Your task to perform on an android device: turn notification dots off Image 0: 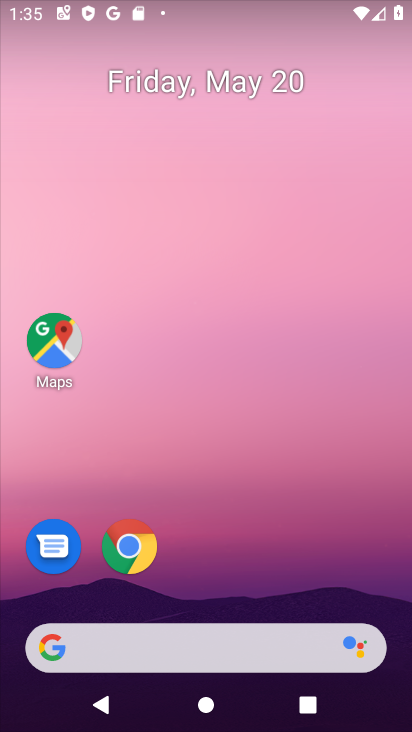
Step 0: drag from (219, 663) to (244, 26)
Your task to perform on an android device: turn notification dots off Image 1: 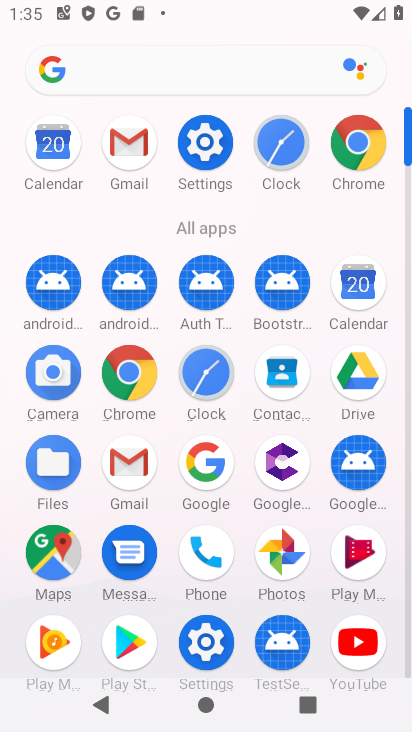
Step 1: click (216, 134)
Your task to perform on an android device: turn notification dots off Image 2: 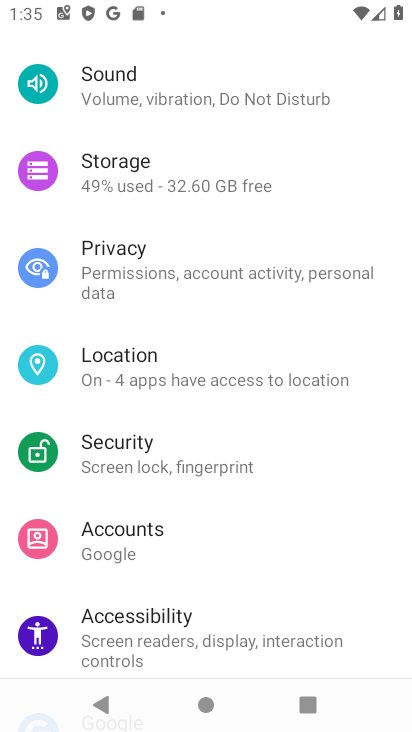
Step 2: drag from (209, 203) to (305, 728)
Your task to perform on an android device: turn notification dots off Image 3: 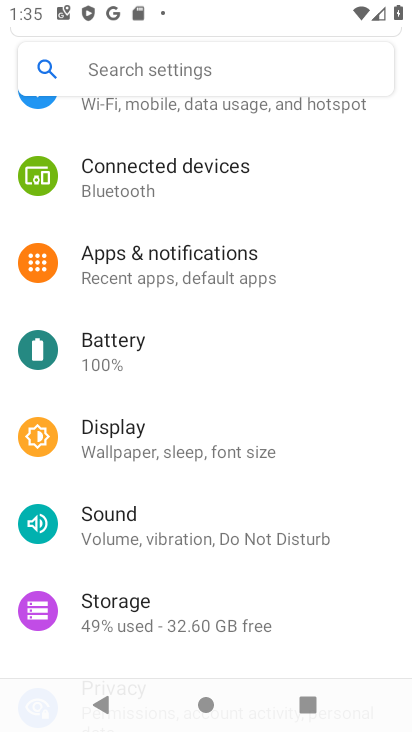
Step 3: click (249, 261)
Your task to perform on an android device: turn notification dots off Image 4: 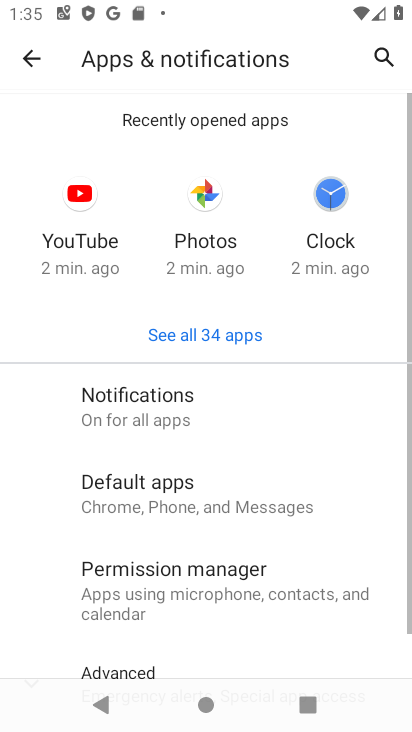
Step 4: drag from (209, 611) to (219, 58)
Your task to perform on an android device: turn notification dots off Image 5: 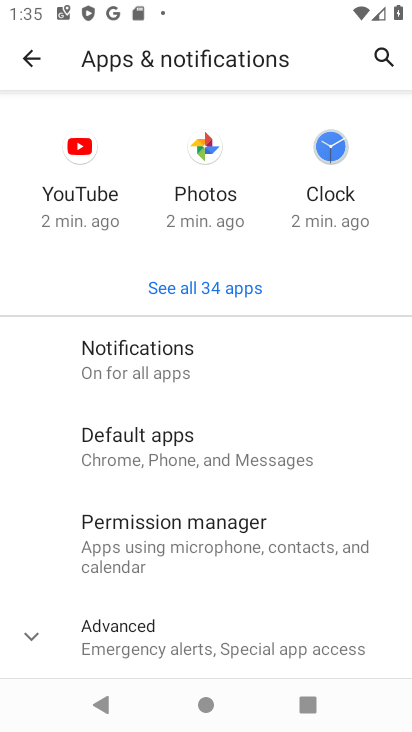
Step 5: click (229, 642)
Your task to perform on an android device: turn notification dots off Image 6: 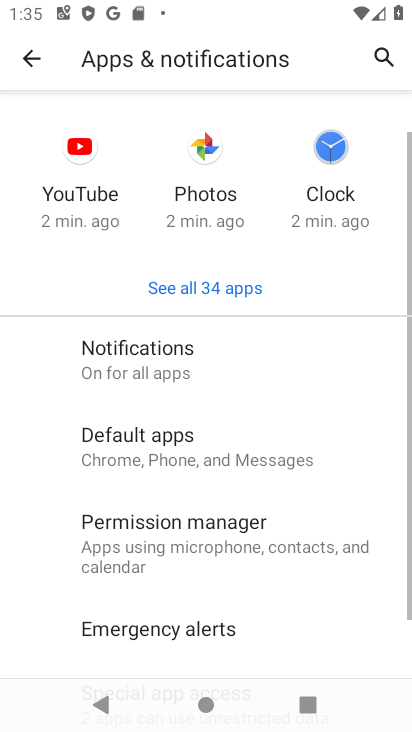
Step 6: click (241, 341)
Your task to perform on an android device: turn notification dots off Image 7: 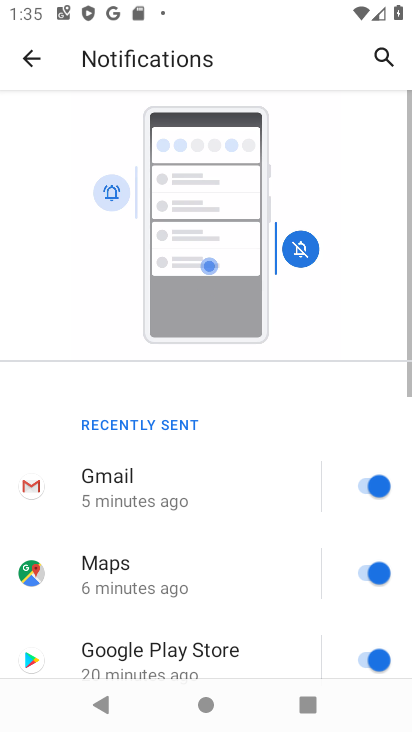
Step 7: drag from (250, 591) to (274, 83)
Your task to perform on an android device: turn notification dots off Image 8: 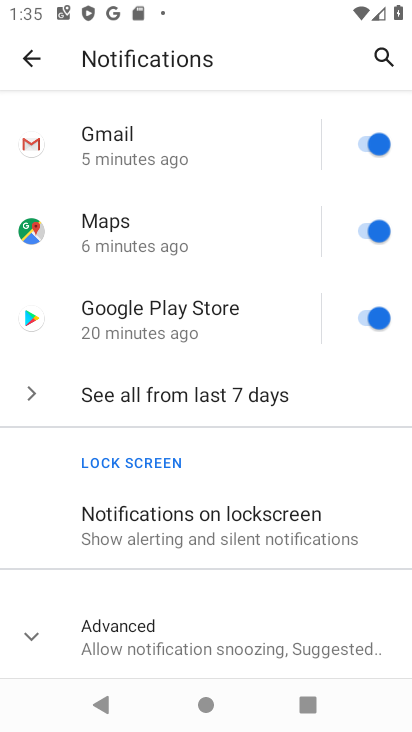
Step 8: drag from (233, 528) to (251, 173)
Your task to perform on an android device: turn notification dots off Image 9: 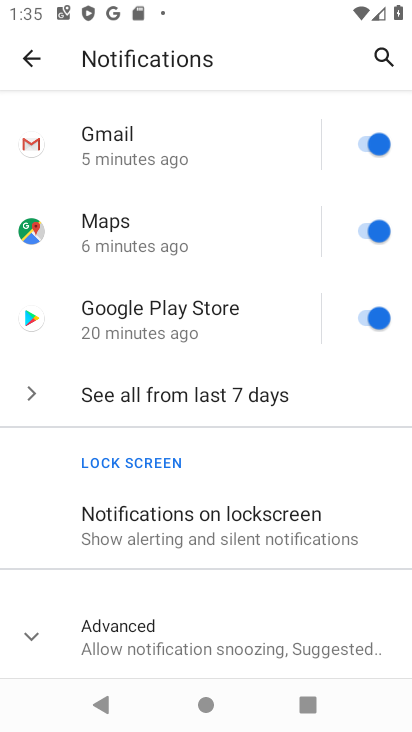
Step 9: click (165, 642)
Your task to perform on an android device: turn notification dots off Image 10: 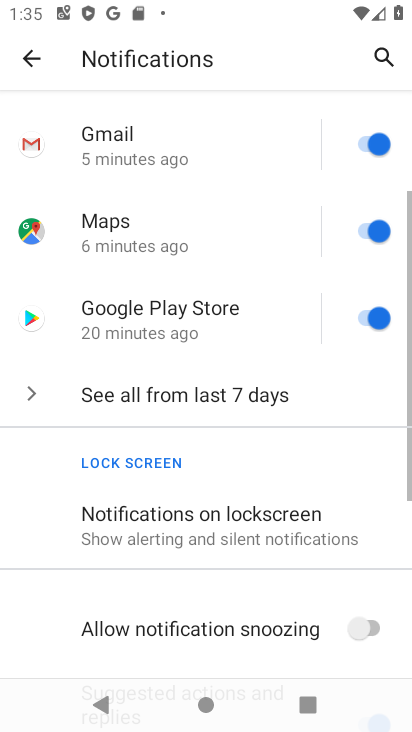
Step 10: task complete